Your task to perform on an android device: Go to privacy settings Image 0: 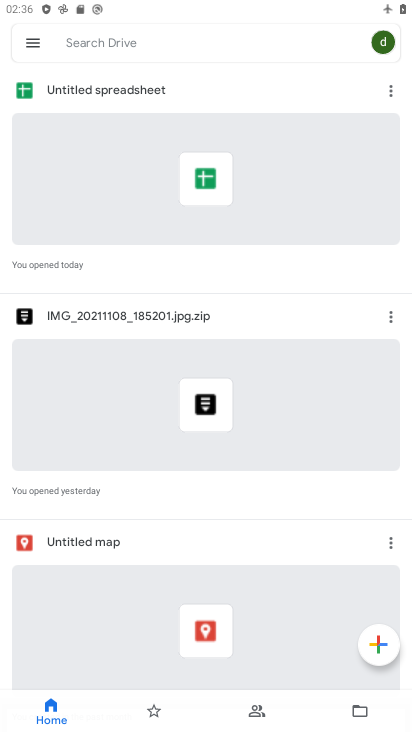
Step 0: press home button
Your task to perform on an android device: Go to privacy settings Image 1: 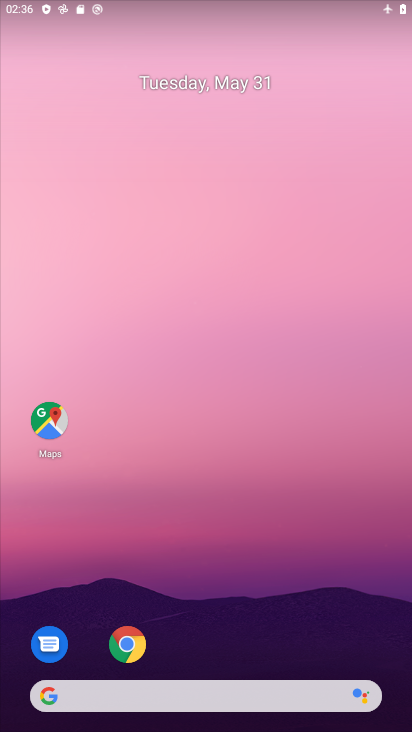
Step 1: drag from (204, 580) to (207, 124)
Your task to perform on an android device: Go to privacy settings Image 2: 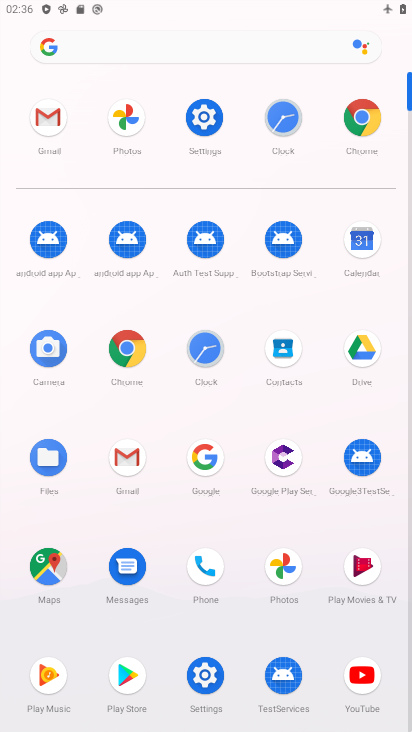
Step 2: click (204, 113)
Your task to perform on an android device: Go to privacy settings Image 3: 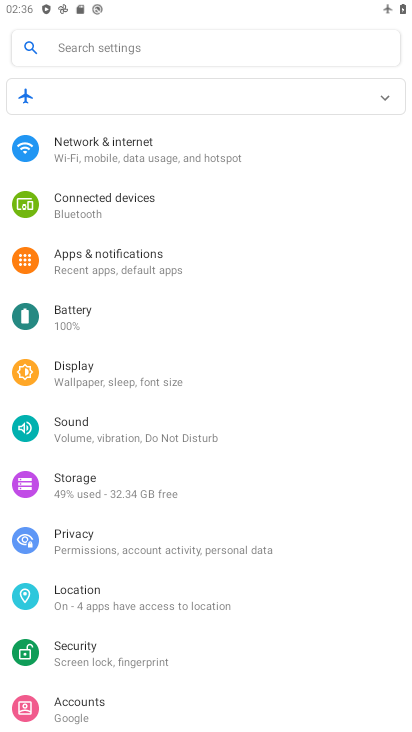
Step 3: click (154, 536)
Your task to perform on an android device: Go to privacy settings Image 4: 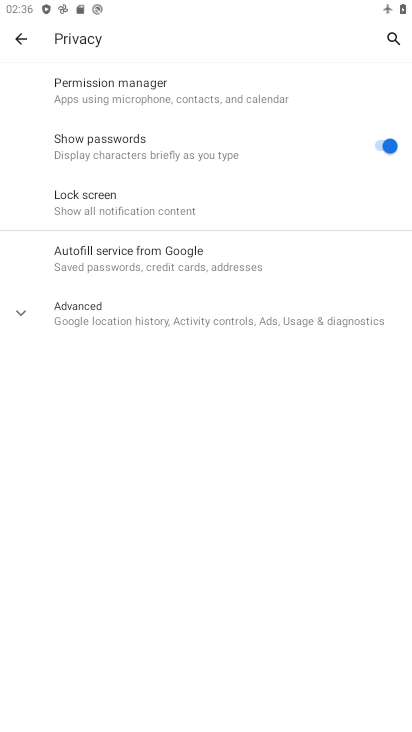
Step 4: task complete